Your task to perform on an android device: Go to CNN.com Image 0: 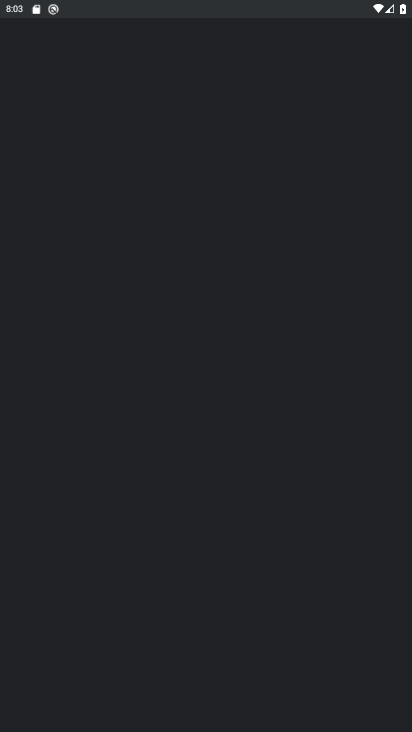
Step 0: drag from (213, 248) to (203, 45)
Your task to perform on an android device: Go to CNN.com Image 1: 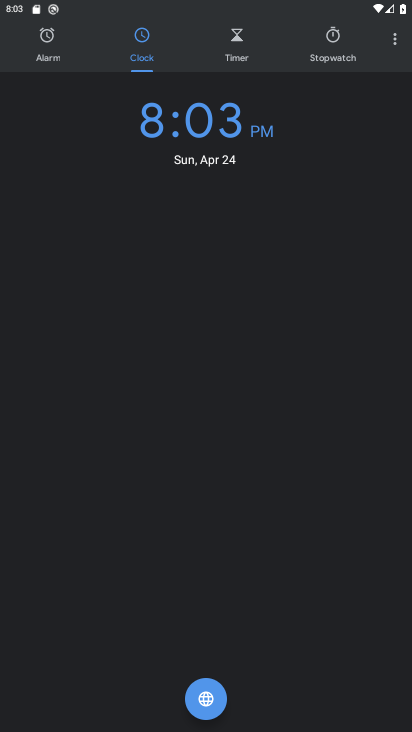
Step 1: press home button
Your task to perform on an android device: Go to CNN.com Image 2: 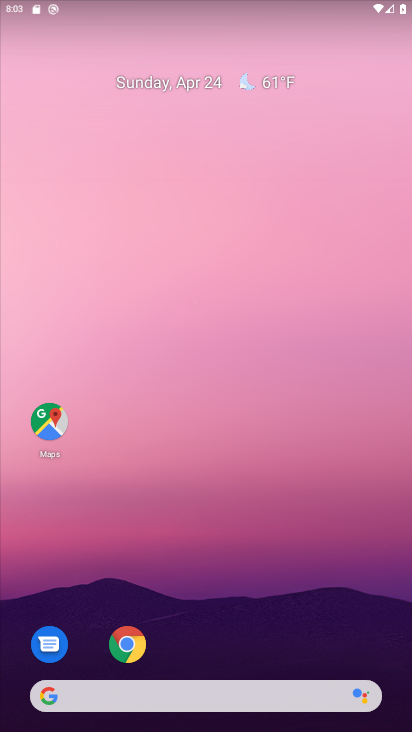
Step 2: drag from (230, 623) to (250, 85)
Your task to perform on an android device: Go to CNN.com Image 3: 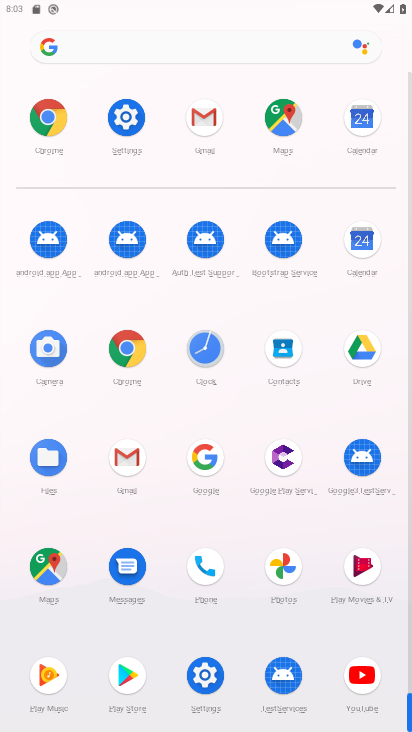
Step 3: click (126, 343)
Your task to perform on an android device: Go to CNN.com Image 4: 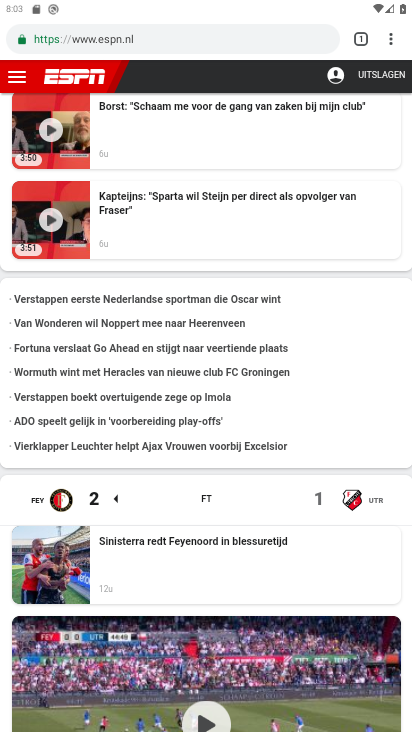
Step 4: click (356, 42)
Your task to perform on an android device: Go to CNN.com Image 5: 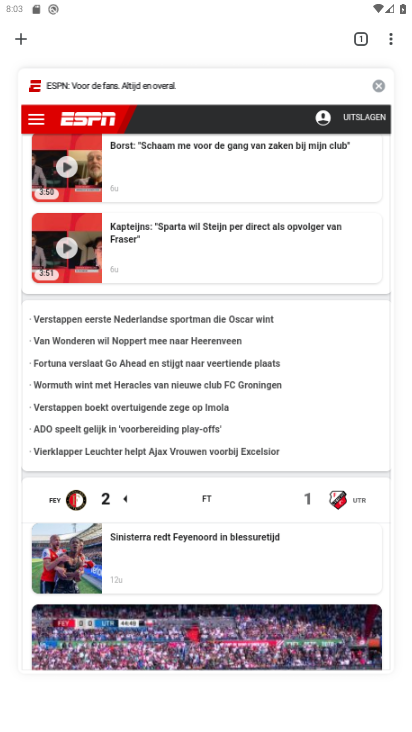
Step 5: click (25, 40)
Your task to perform on an android device: Go to CNN.com Image 6: 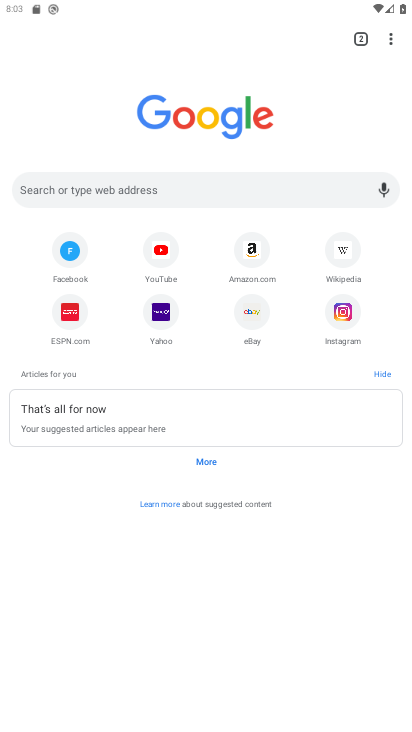
Step 6: click (121, 177)
Your task to perform on an android device: Go to CNN.com Image 7: 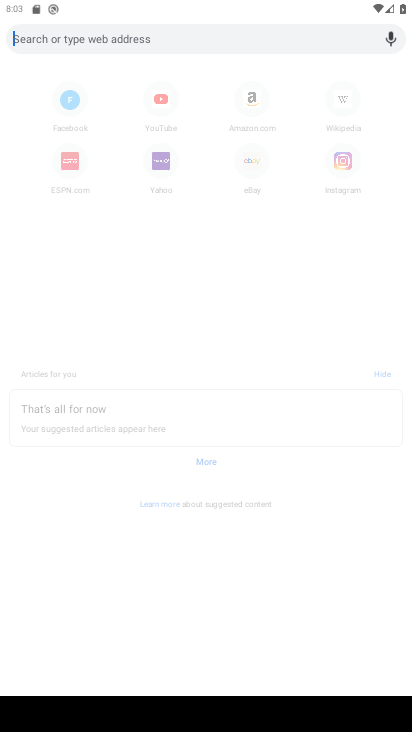
Step 7: type "cnn"
Your task to perform on an android device: Go to CNN.com Image 8: 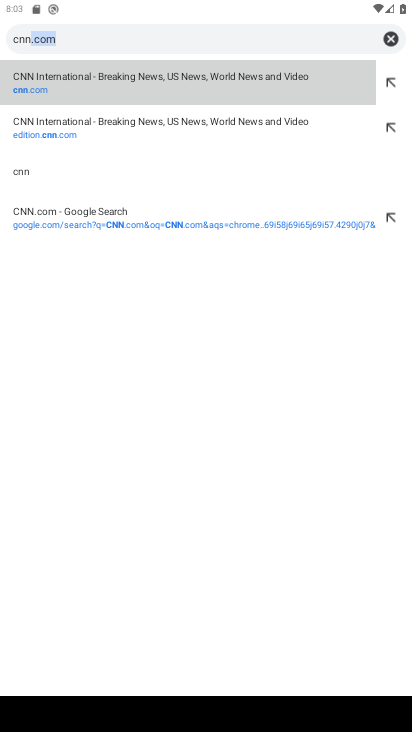
Step 8: type ""
Your task to perform on an android device: Go to CNN.com Image 9: 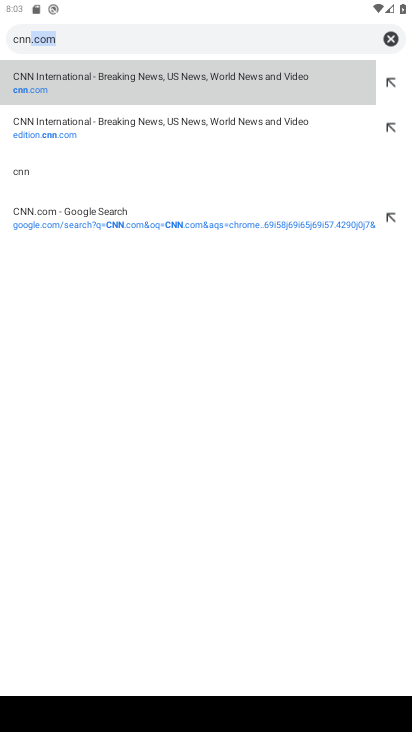
Step 9: click (92, 81)
Your task to perform on an android device: Go to CNN.com Image 10: 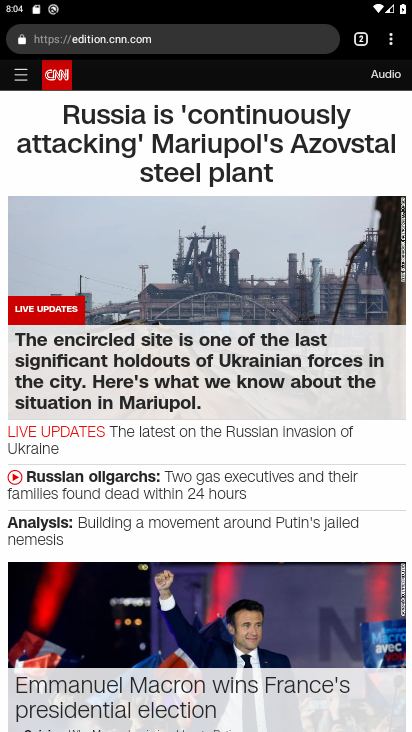
Step 10: task complete